Your task to perform on an android device: uninstall "Upside-Cash back on gas & food" Image 0: 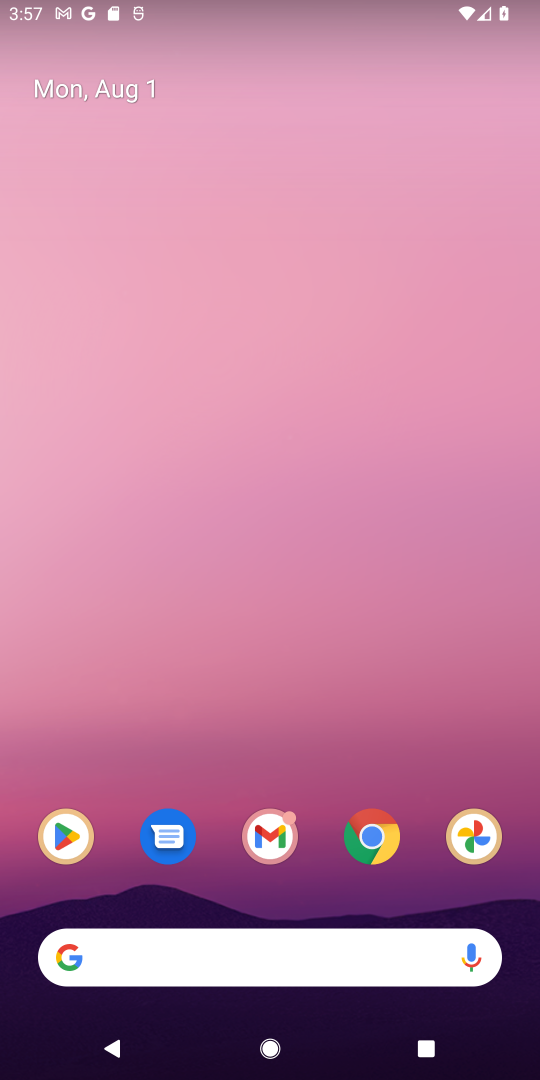
Step 0: drag from (303, 929) to (341, 221)
Your task to perform on an android device: uninstall "Upside-Cash back on gas & food" Image 1: 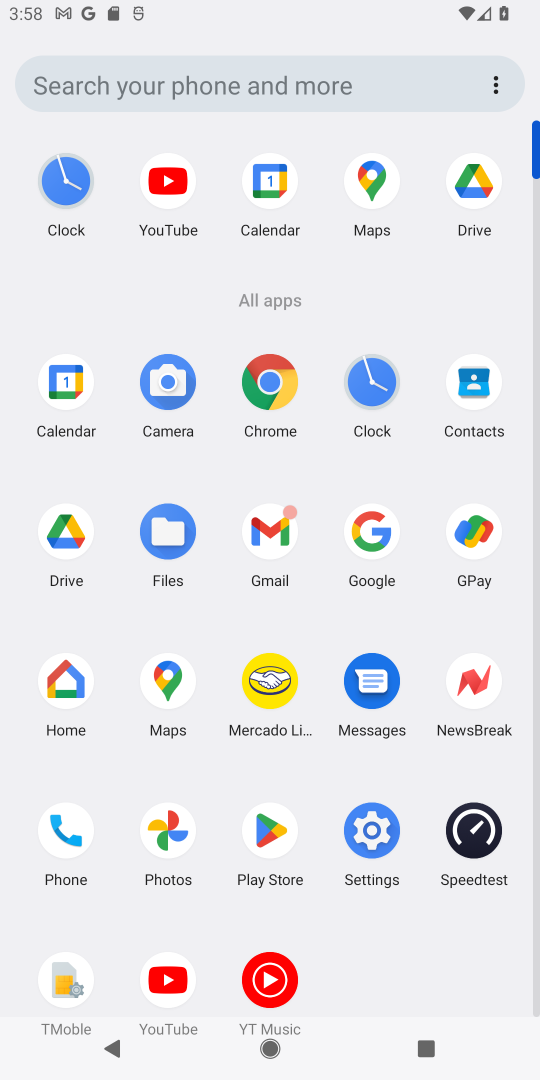
Step 1: click (268, 836)
Your task to perform on an android device: uninstall "Upside-Cash back on gas & food" Image 2: 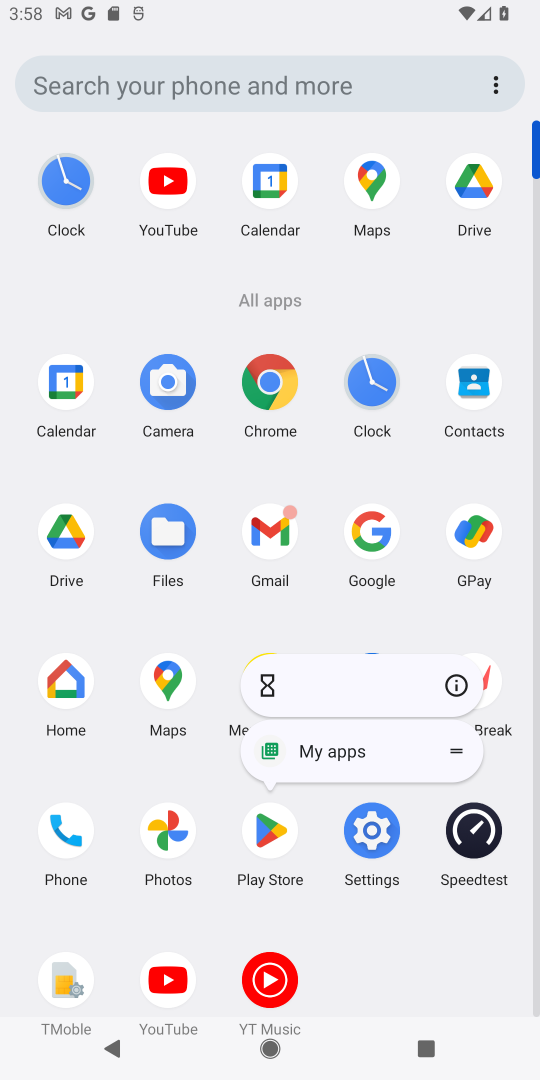
Step 2: click (268, 836)
Your task to perform on an android device: uninstall "Upside-Cash back on gas & food" Image 3: 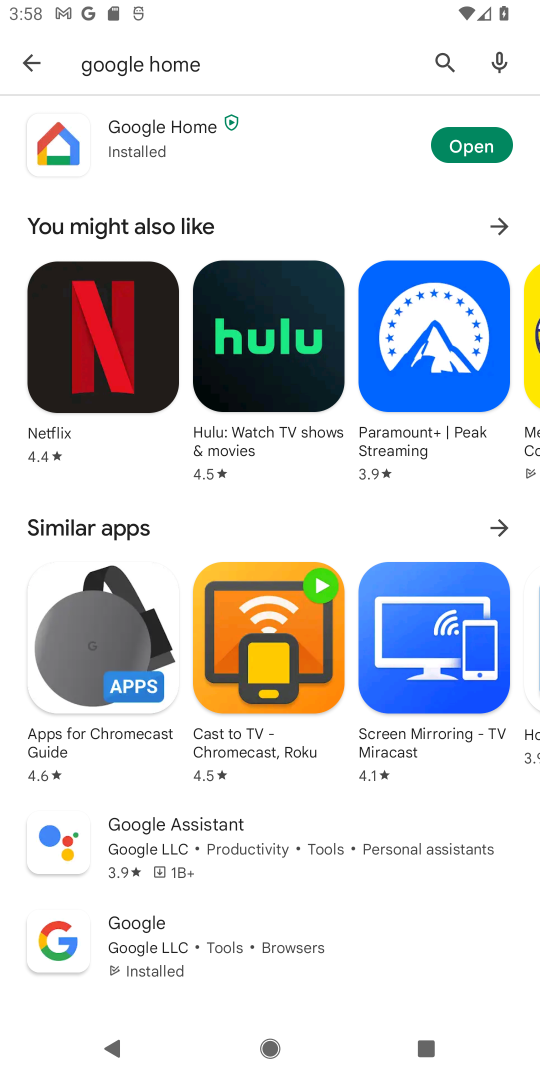
Step 3: click (41, 62)
Your task to perform on an android device: uninstall "Upside-Cash back on gas & food" Image 4: 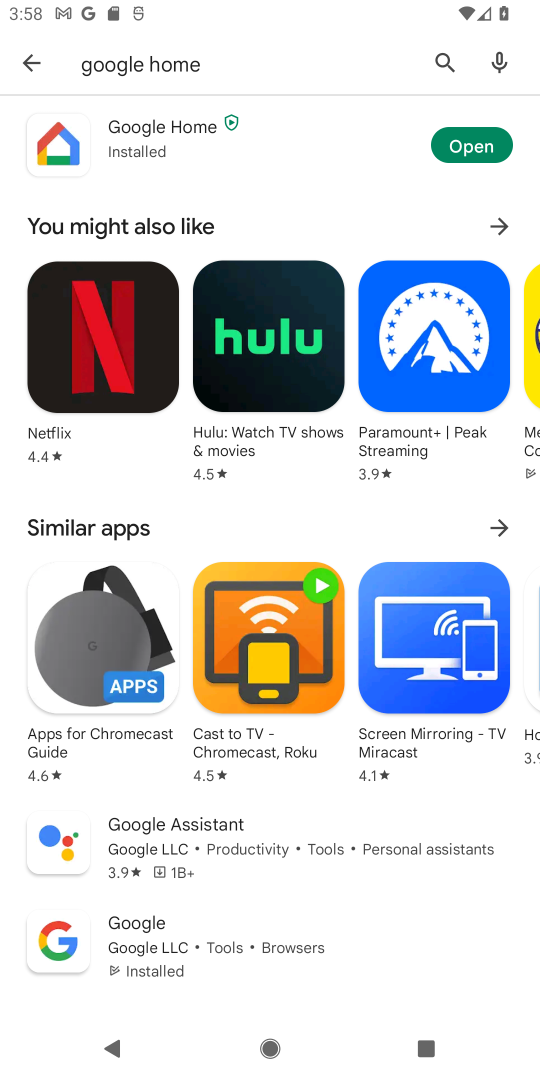
Step 4: click (36, 55)
Your task to perform on an android device: uninstall "Upside-Cash back on gas & food" Image 5: 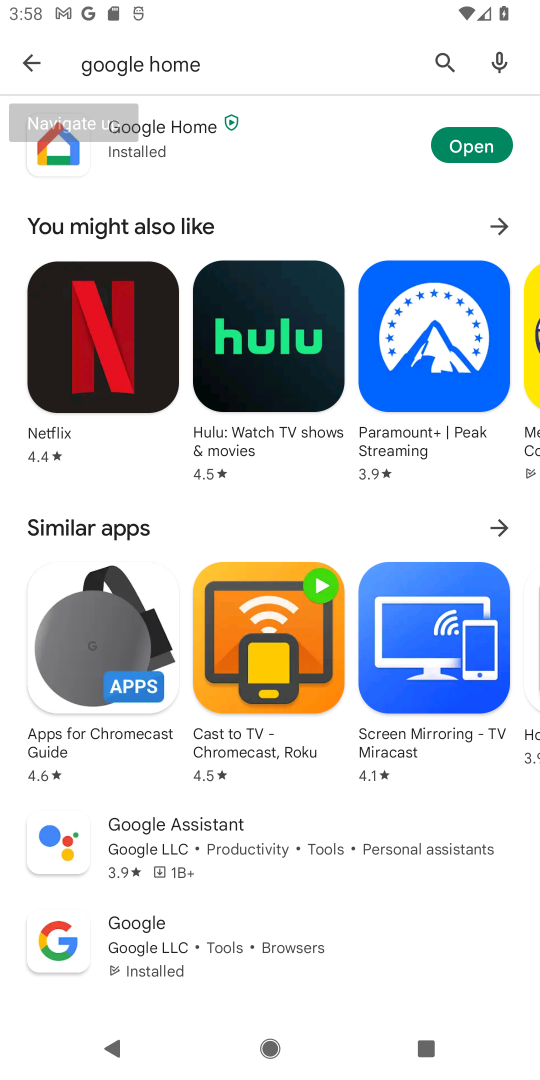
Step 5: click (31, 66)
Your task to perform on an android device: uninstall "Upside-Cash back on gas & food" Image 6: 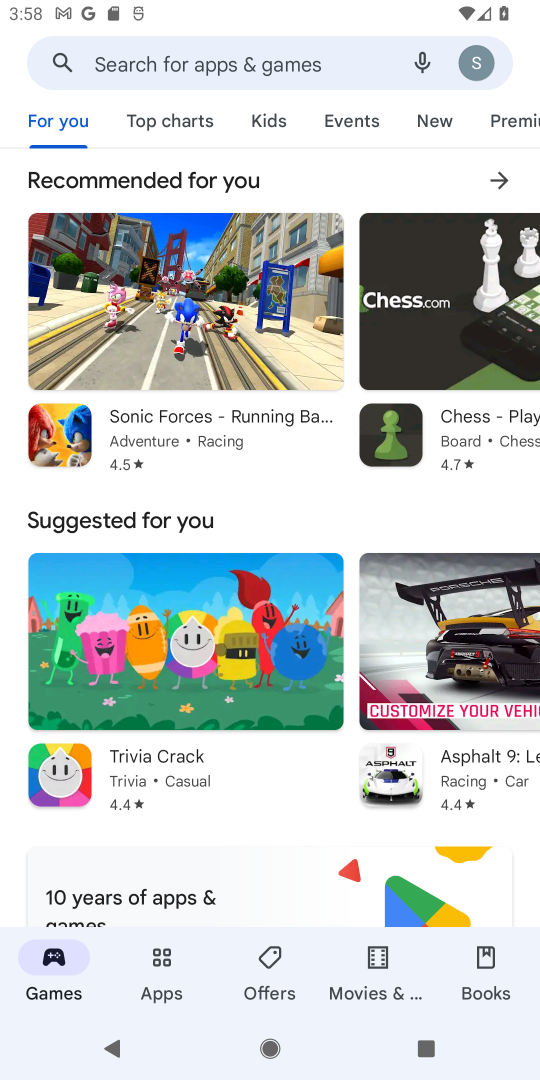
Step 6: click (166, 63)
Your task to perform on an android device: uninstall "Upside-Cash back on gas & food" Image 7: 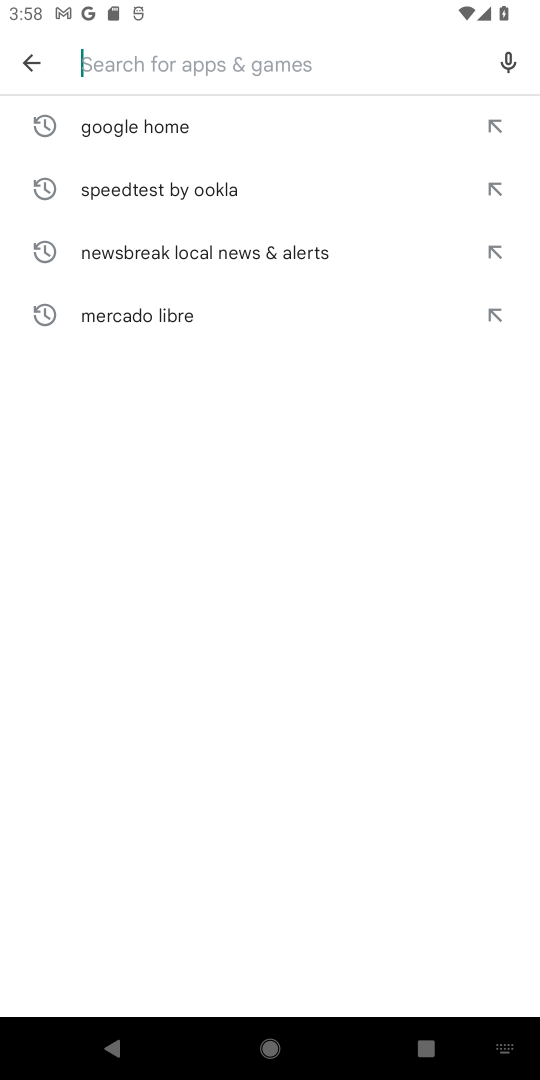
Step 7: type "Upside-Cash back on gas & food""
Your task to perform on an android device: uninstall "Upside-Cash back on gas & food" Image 8: 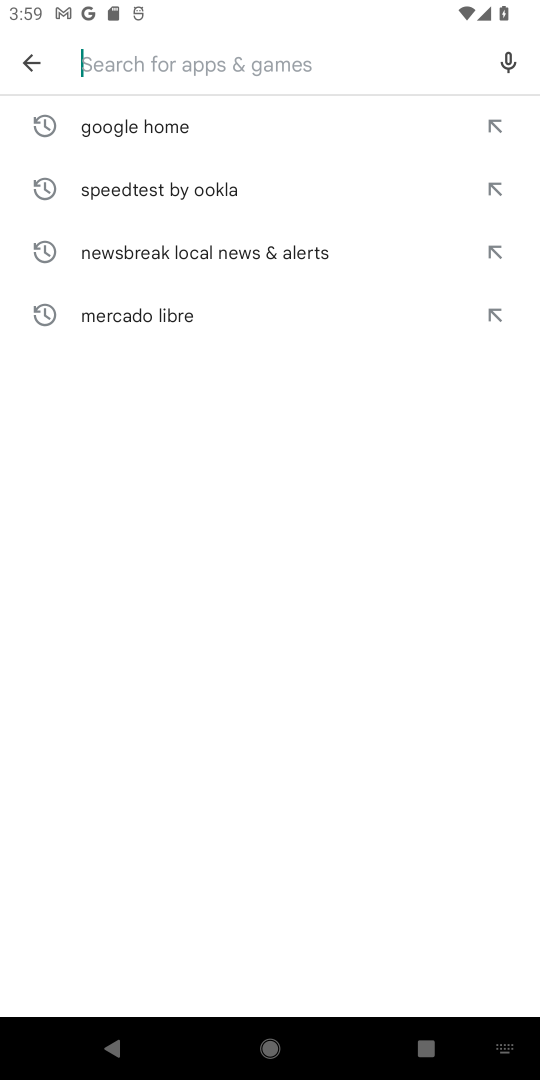
Step 8: type "Upside-Cash back on gas & food"
Your task to perform on an android device: uninstall "Upside-Cash back on gas & food" Image 9: 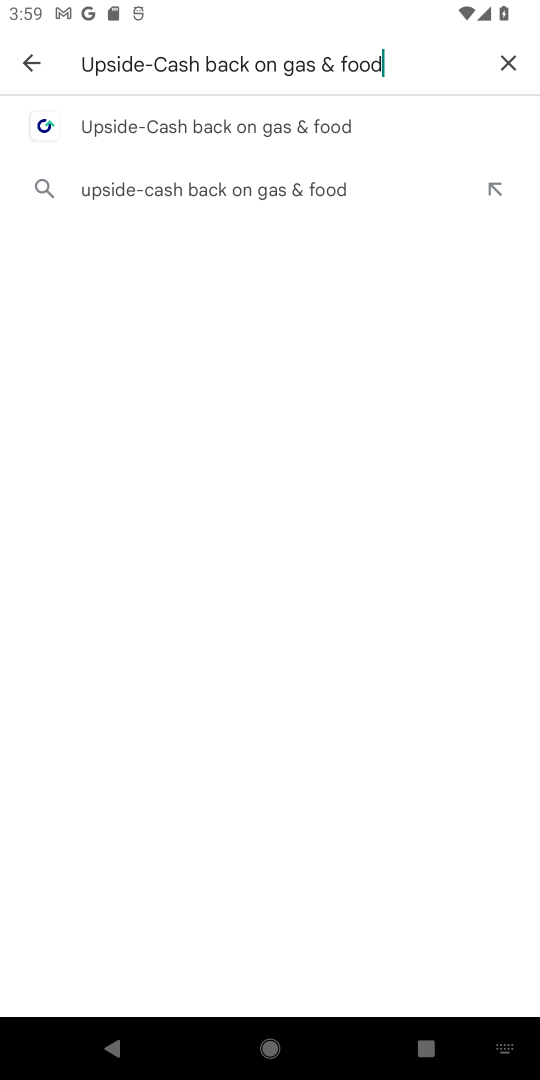
Step 9: click (177, 124)
Your task to perform on an android device: uninstall "Upside-Cash back on gas & food" Image 10: 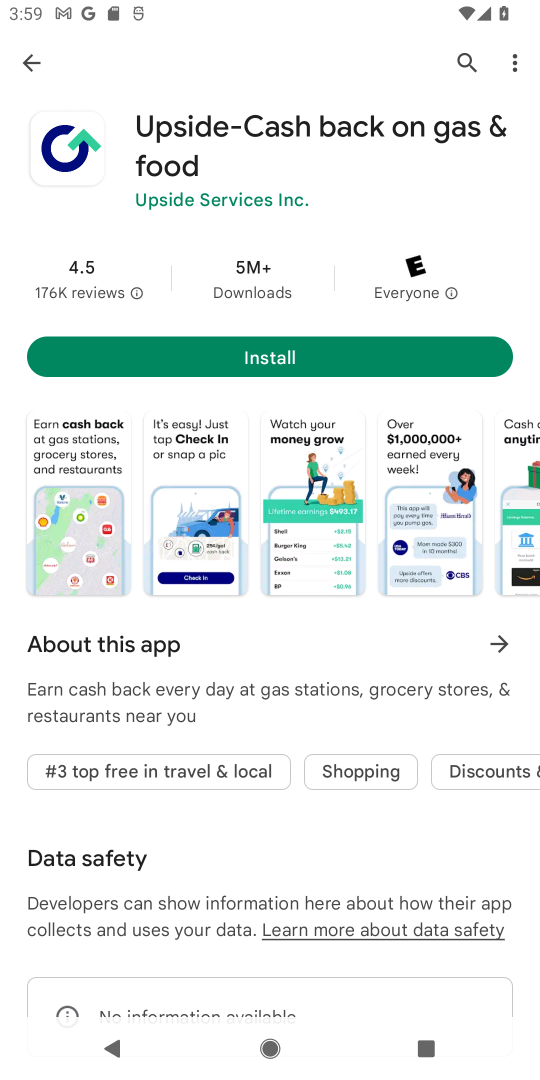
Step 10: task complete